Your task to perform on an android device: Find coffee shops on Maps Image 0: 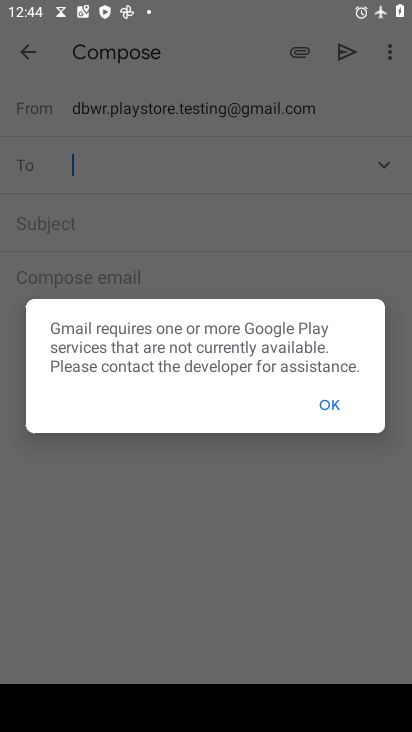
Step 0: press home button
Your task to perform on an android device: Find coffee shops on Maps Image 1: 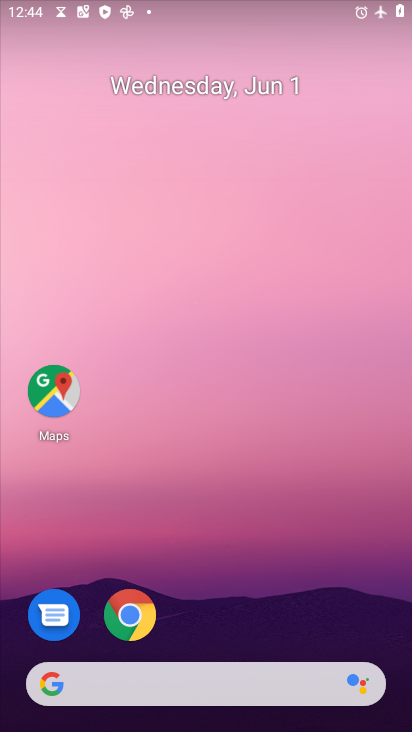
Step 1: drag from (250, 559) to (238, 69)
Your task to perform on an android device: Find coffee shops on Maps Image 2: 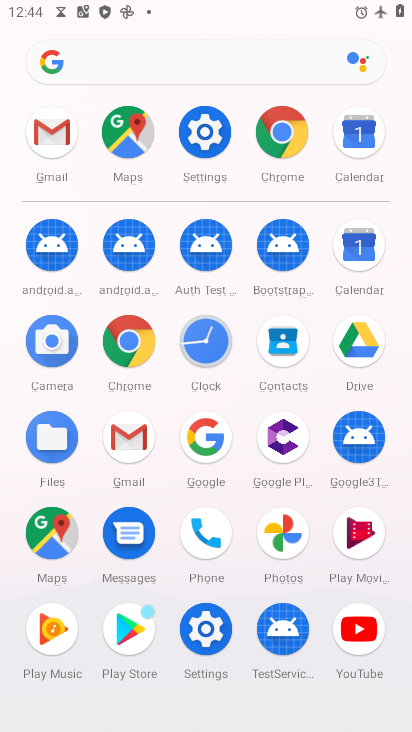
Step 2: click (137, 128)
Your task to perform on an android device: Find coffee shops on Maps Image 3: 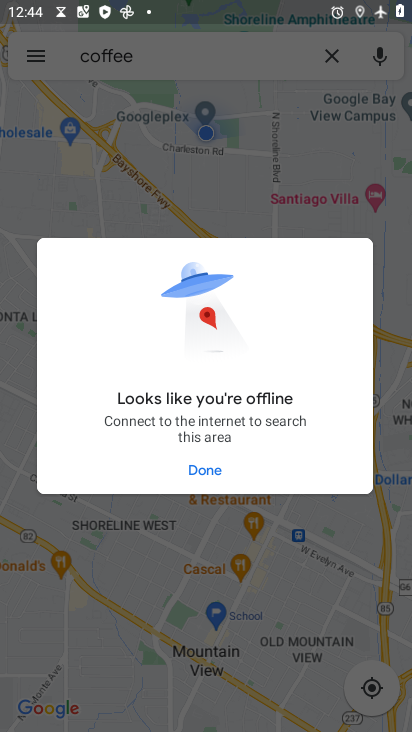
Step 3: task complete